Your task to perform on an android device: turn on airplane mode Image 0: 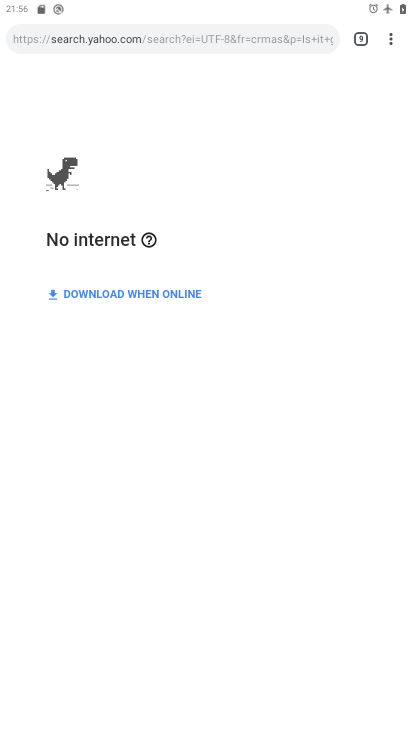
Step 0: press home button
Your task to perform on an android device: turn on airplane mode Image 1: 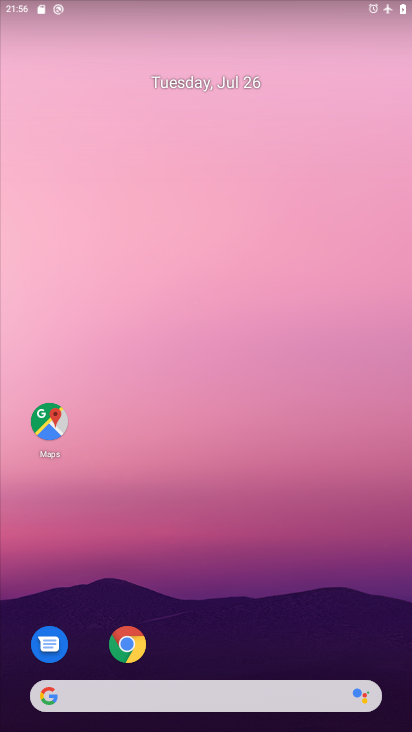
Step 1: drag from (216, 638) to (268, 56)
Your task to perform on an android device: turn on airplane mode Image 2: 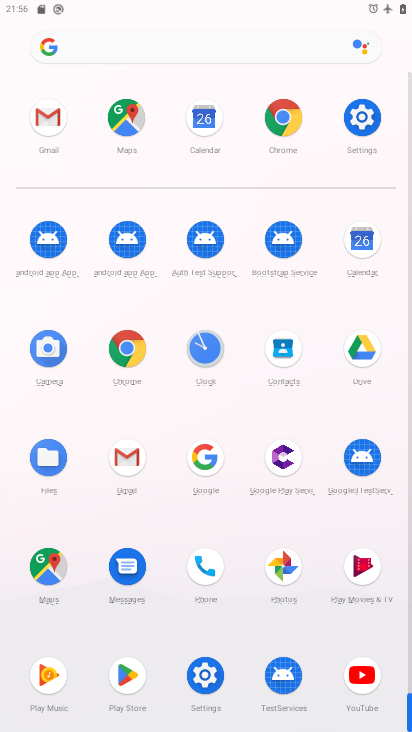
Step 2: click (351, 115)
Your task to perform on an android device: turn on airplane mode Image 3: 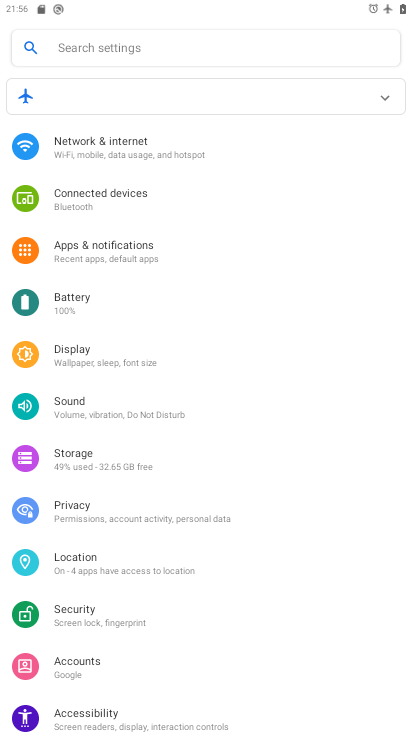
Step 3: click (223, 128)
Your task to perform on an android device: turn on airplane mode Image 4: 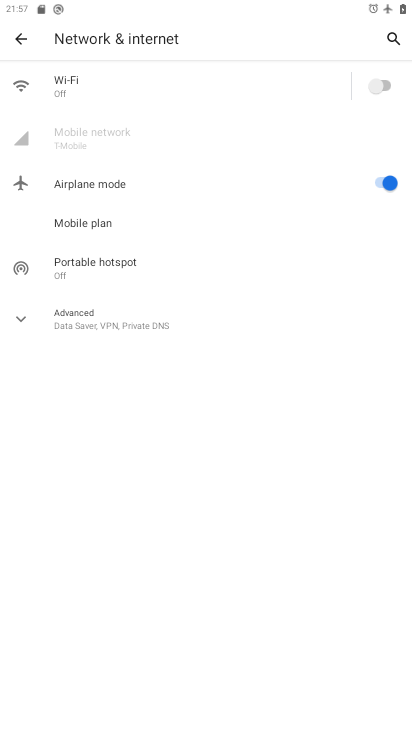
Step 4: task complete